Your task to perform on an android device: clear history in the chrome app Image 0: 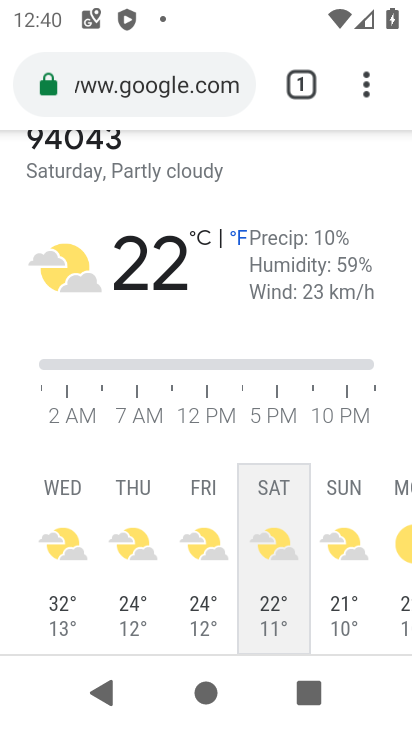
Step 0: press home button
Your task to perform on an android device: clear history in the chrome app Image 1: 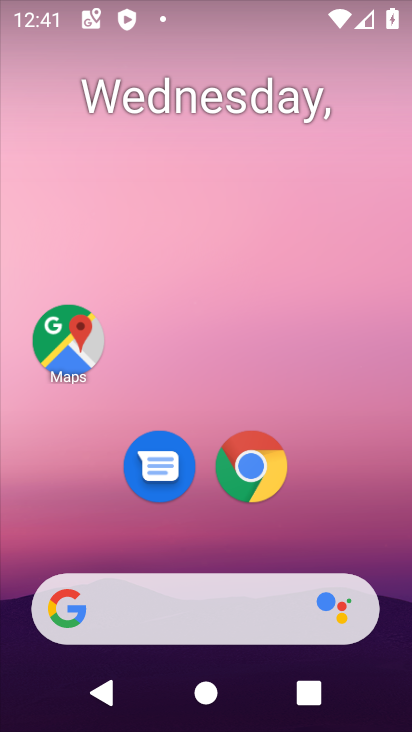
Step 1: drag from (316, 524) to (309, 65)
Your task to perform on an android device: clear history in the chrome app Image 2: 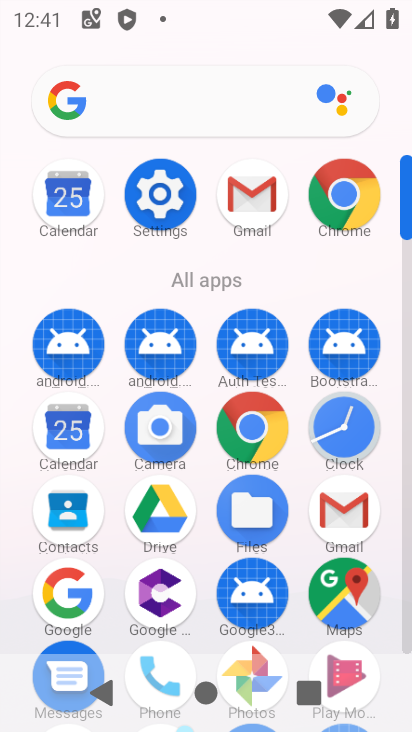
Step 2: click (345, 198)
Your task to perform on an android device: clear history in the chrome app Image 3: 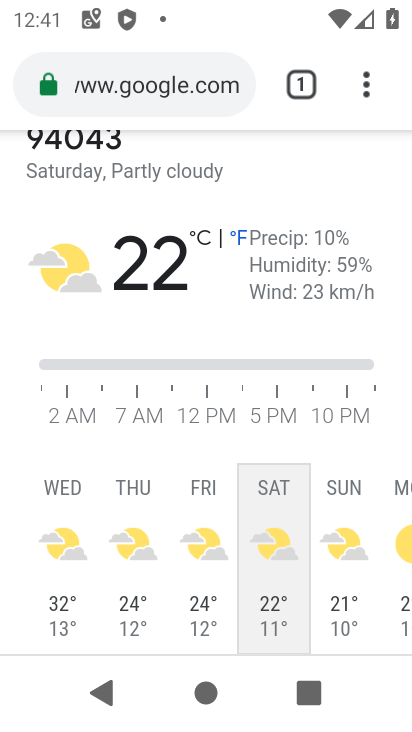
Step 3: drag from (362, 75) to (55, 483)
Your task to perform on an android device: clear history in the chrome app Image 4: 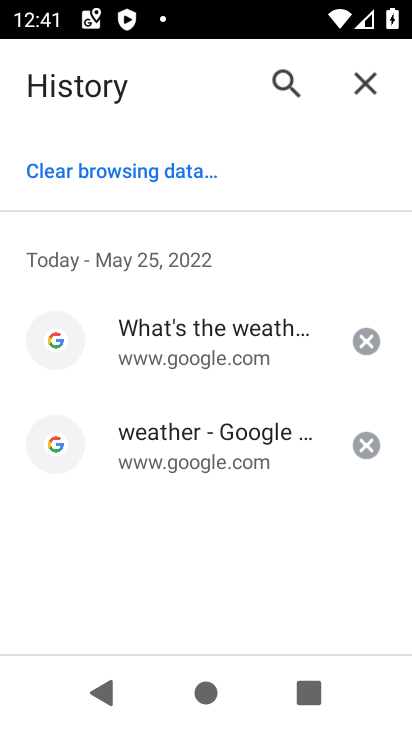
Step 4: click (78, 171)
Your task to perform on an android device: clear history in the chrome app Image 5: 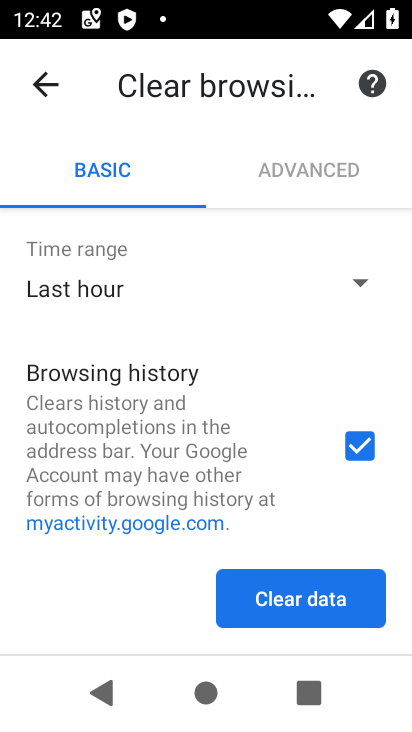
Step 5: click (361, 255)
Your task to perform on an android device: clear history in the chrome app Image 6: 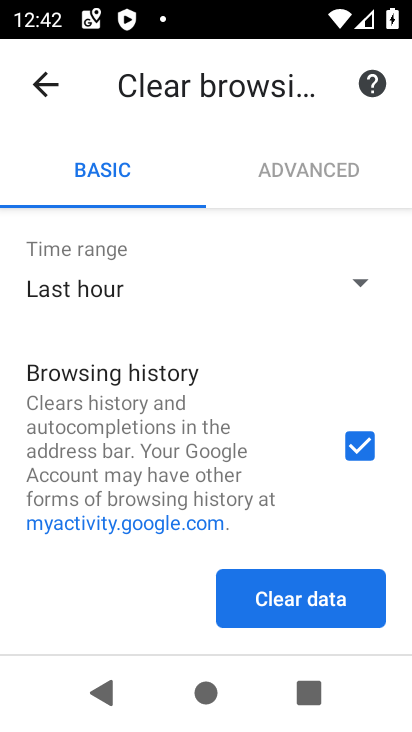
Step 6: click (361, 282)
Your task to perform on an android device: clear history in the chrome app Image 7: 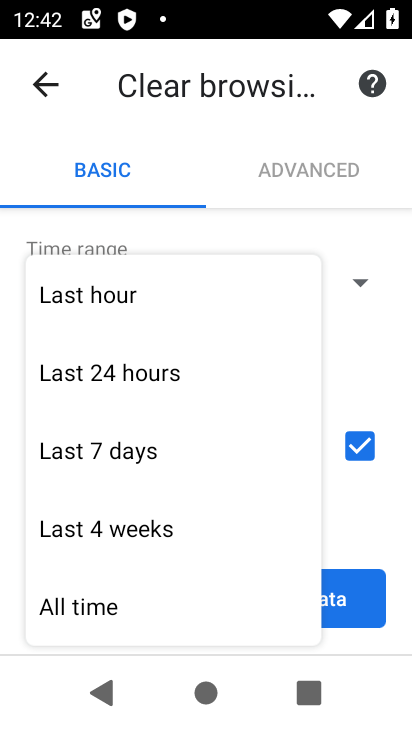
Step 7: click (112, 602)
Your task to perform on an android device: clear history in the chrome app Image 8: 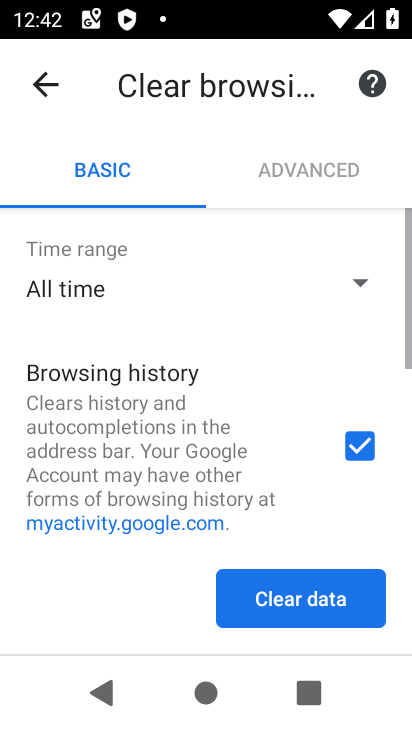
Step 8: click (367, 603)
Your task to perform on an android device: clear history in the chrome app Image 9: 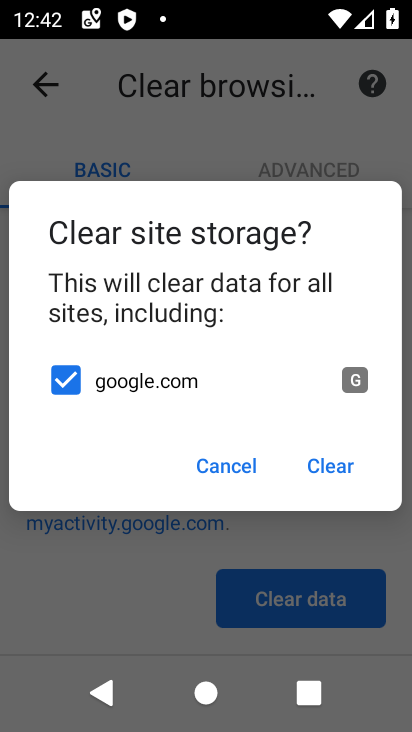
Step 9: click (323, 466)
Your task to perform on an android device: clear history in the chrome app Image 10: 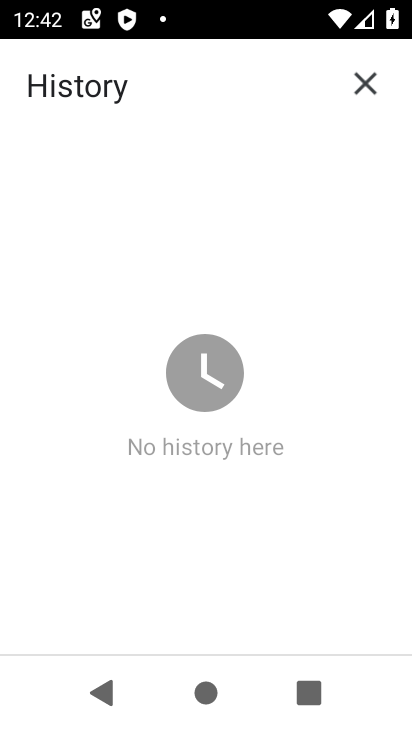
Step 10: task complete